Your task to perform on an android device: Open calendar and show me the first week of next month Image 0: 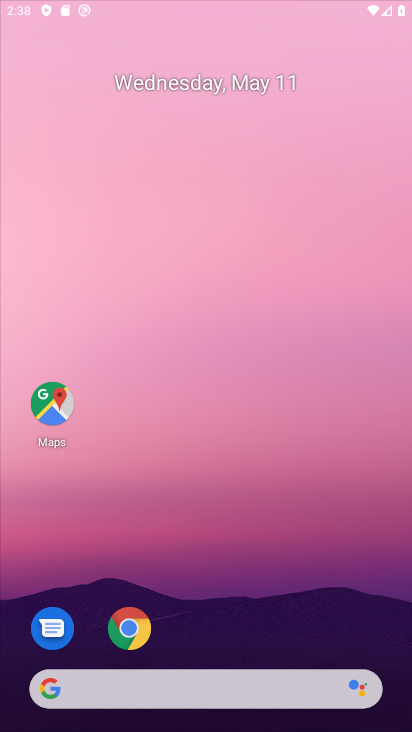
Step 0: click (138, 633)
Your task to perform on an android device: Open calendar and show me the first week of next month Image 1: 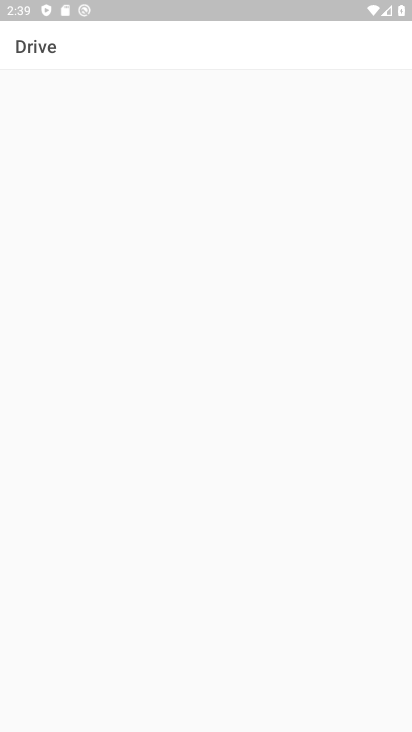
Step 1: press home button
Your task to perform on an android device: Open calendar and show me the first week of next month Image 2: 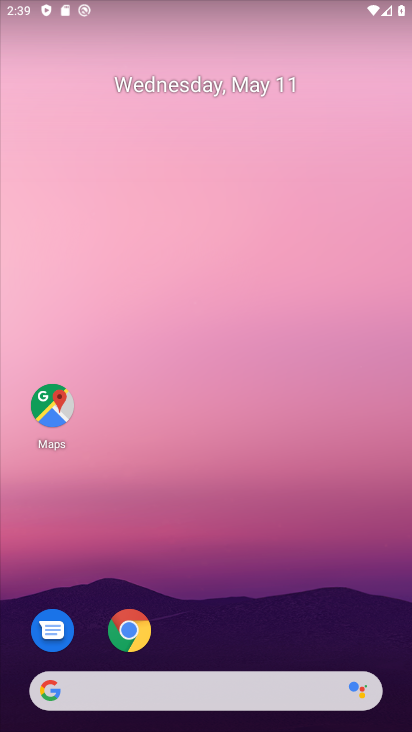
Step 2: drag from (329, 652) to (350, 111)
Your task to perform on an android device: Open calendar and show me the first week of next month Image 3: 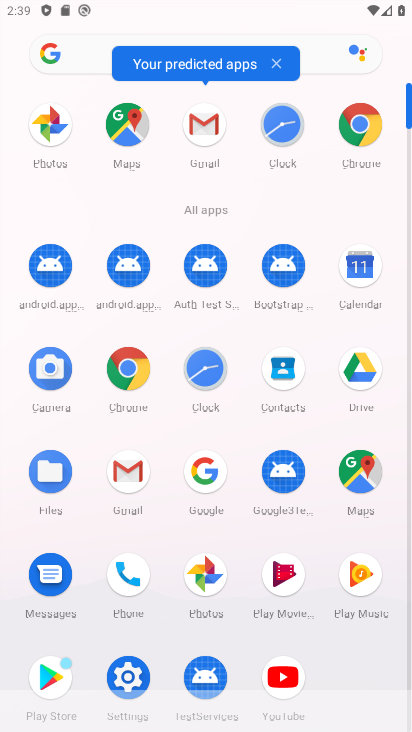
Step 3: click (363, 276)
Your task to perform on an android device: Open calendar and show me the first week of next month Image 4: 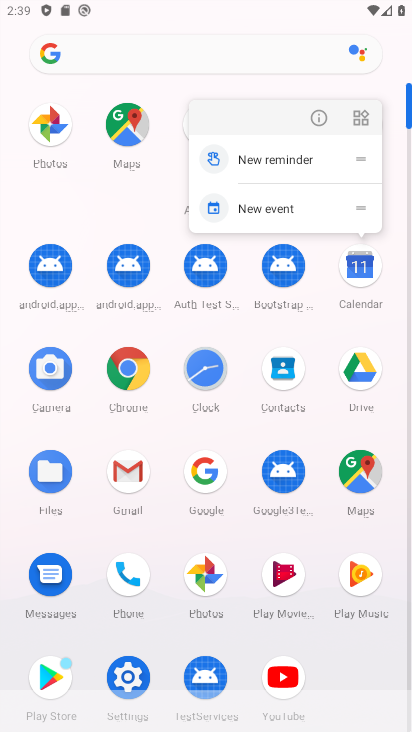
Step 4: click (363, 275)
Your task to perform on an android device: Open calendar and show me the first week of next month Image 5: 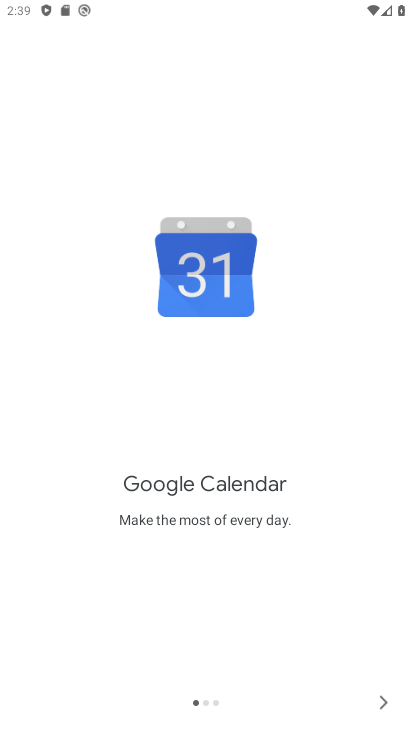
Step 5: click (389, 708)
Your task to perform on an android device: Open calendar and show me the first week of next month Image 6: 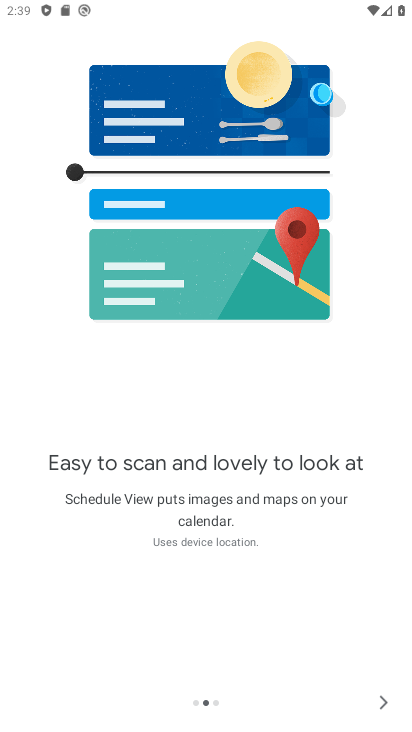
Step 6: click (389, 708)
Your task to perform on an android device: Open calendar and show me the first week of next month Image 7: 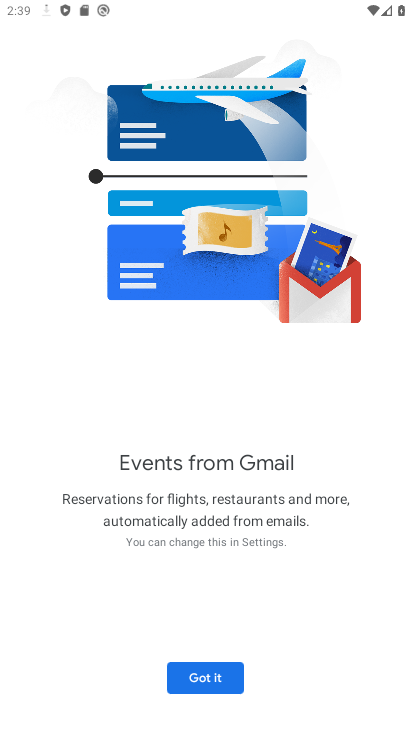
Step 7: click (221, 681)
Your task to perform on an android device: Open calendar and show me the first week of next month Image 8: 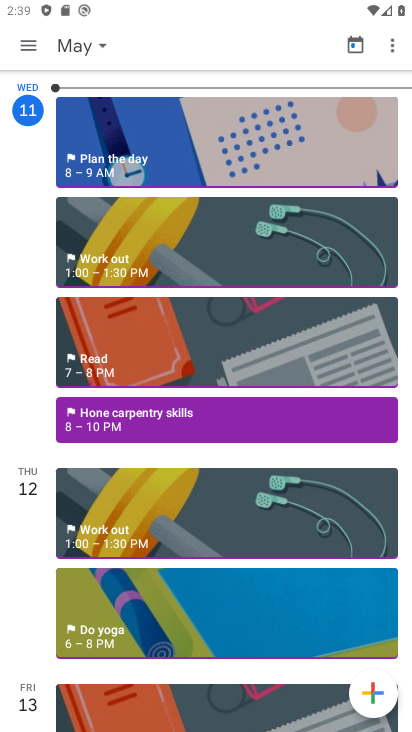
Step 8: click (99, 53)
Your task to perform on an android device: Open calendar and show me the first week of next month Image 9: 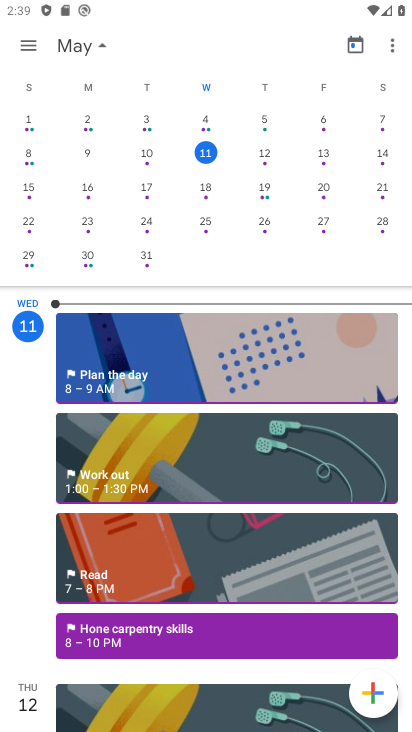
Step 9: drag from (337, 201) to (45, 264)
Your task to perform on an android device: Open calendar and show me the first week of next month Image 10: 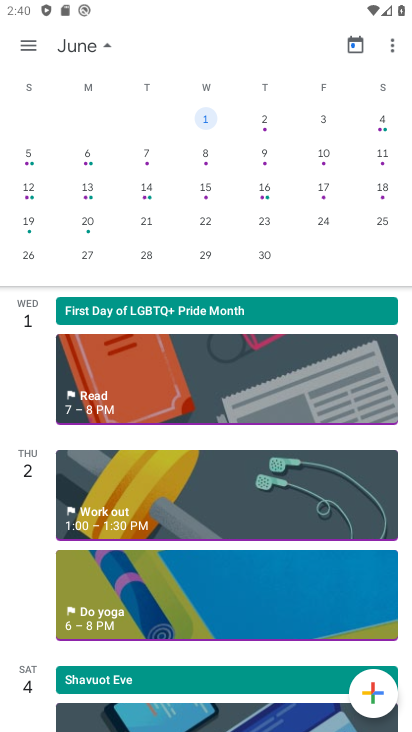
Step 10: click (26, 49)
Your task to perform on an android device: Open calendar and show me the first week of next month Image 11: 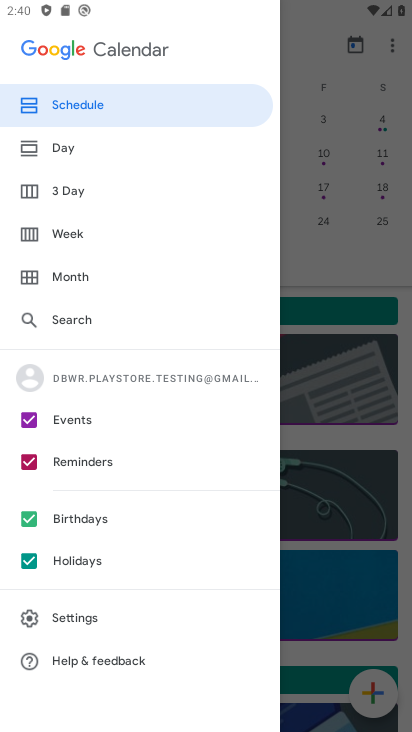
Step 11: click (51, 245)
Your task to perform on an android device: Open calendar and show me the first week of next month Image 12: 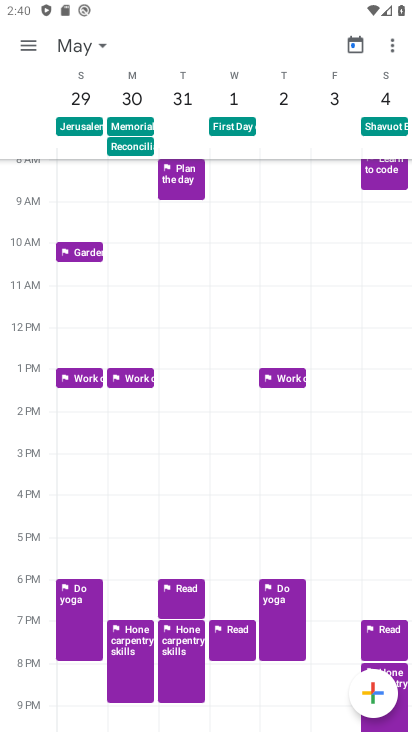
Step 12: task complete